Your task to perform on an android device: turn off airplane mode Image 0: 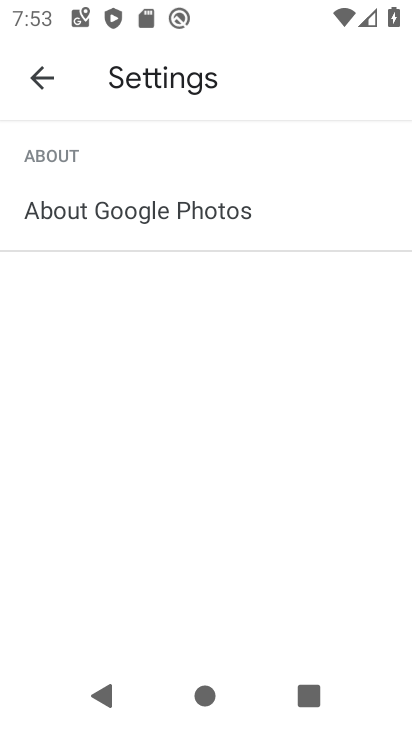
Step 0: press home button
Your task to perform on an android device: turn off airplane mode Image 1: 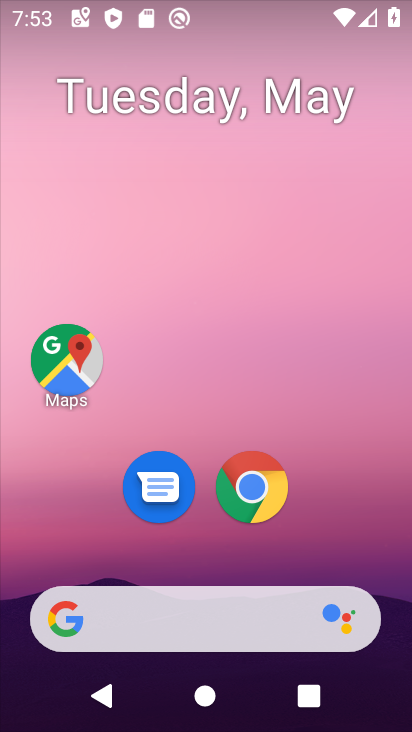
Step 1: drag from (342, 533) to (350, 156)
Your task to perform on an android device: turn off airplane mode Image 2: 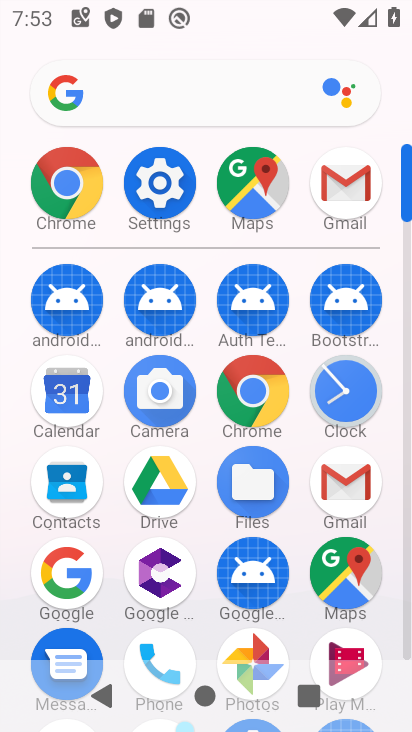
Step 2: click (174, 204)
Your task to perform on an android device: turn off airplane mode Image 3: 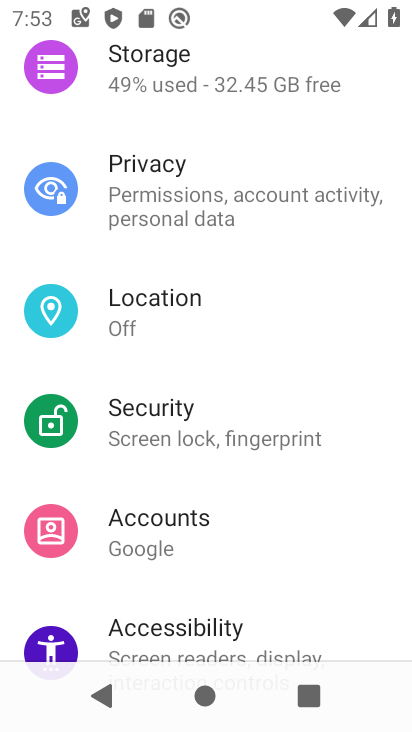
Step 3: drag from (357, 507) to (359, 359)
Your task to perform on an android device: turn off airplane mode Image 4: 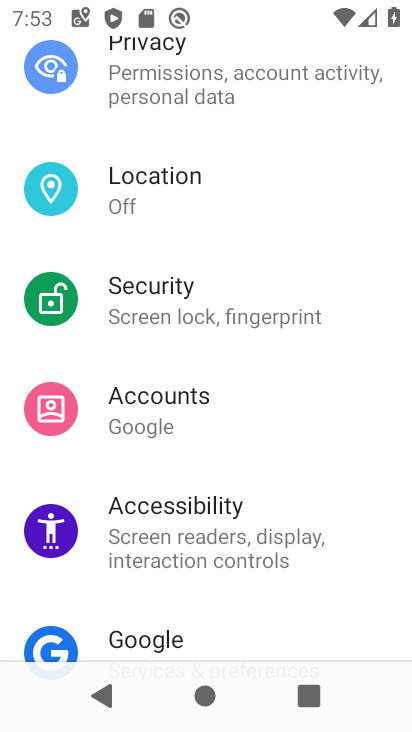
Step 4: drag from (348, 487) to (347, 320)
Your task to perform on an android device: turn off airplane mode Image 5: 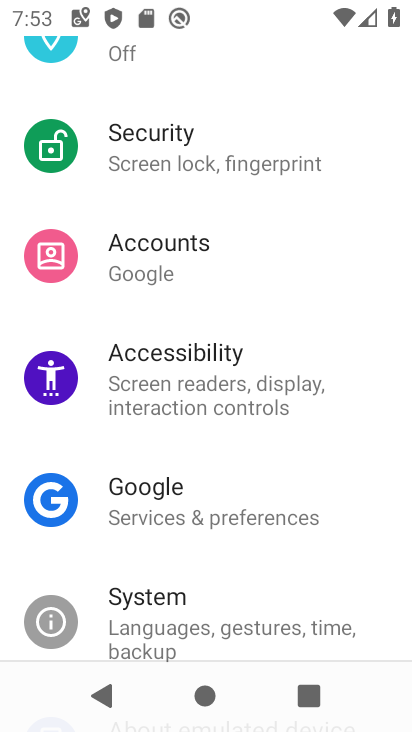
Step 5: drag from (342, 498) to (343, 339)
Your task to perform on an android device: turn off airplane mode Image 6: 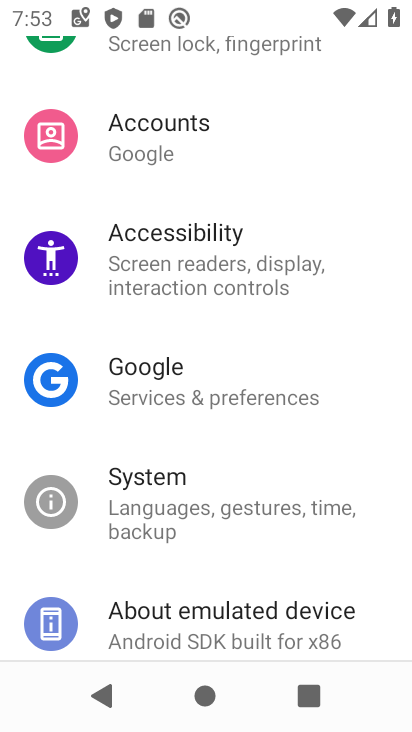
Step 6: drag from (350, 278) to (359, 440)
Your task to perform on an android device: turn off airplane mode Image 7: 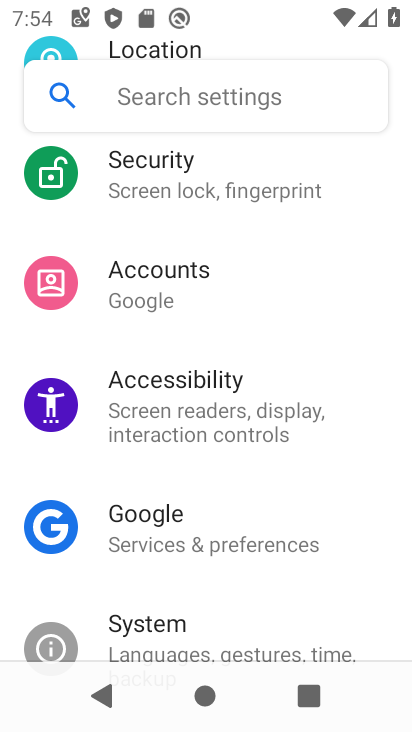
Step 7: drag from (349, 291) to (344, 396)
Your task to perform on an android device: turn off airplane mode Image 8: 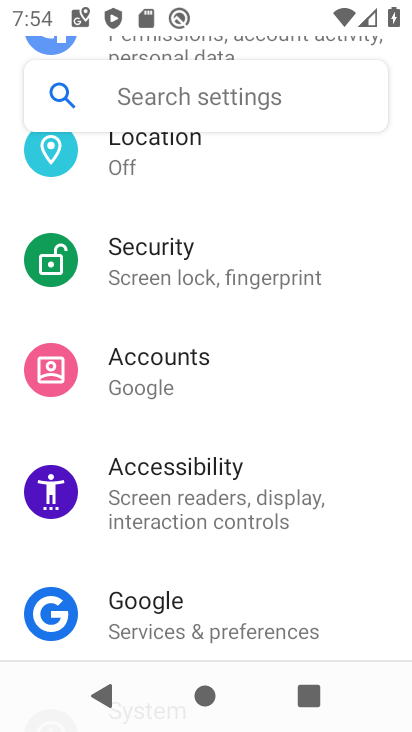
Step 8: drag from (349, 311) to (364, 431)
Your task to perform on an android device: turn off airplane mode Image 9: 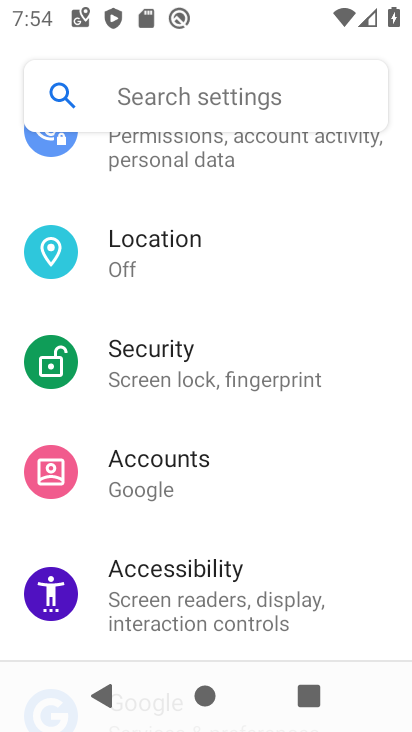
Step 9: drag from (354, 276) to (348, 413)
Your task to perform on an android device: turn off airplane mode Image 10: 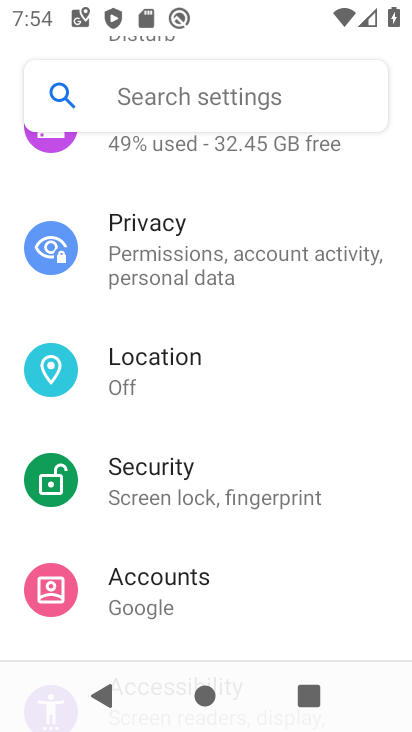
Step 10: drag from (349, 309) to (354, 391)
Your task to perform on an android device: turn off airplane mode Image 11: 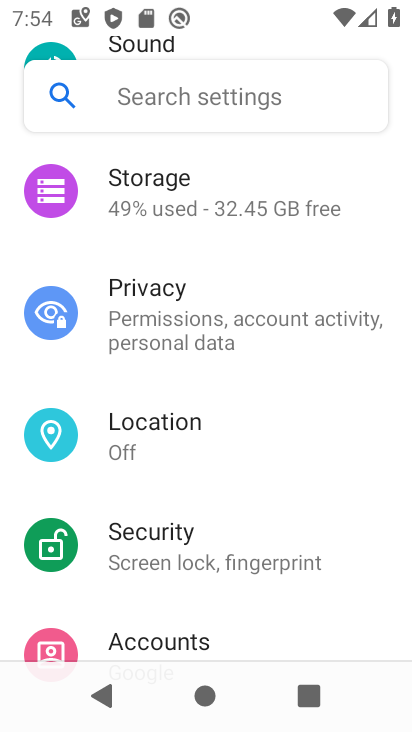
Step 11: drag from (362, 254) to (375, 407)
Your task to perform on an android device: turn off airplane mode Image 12: 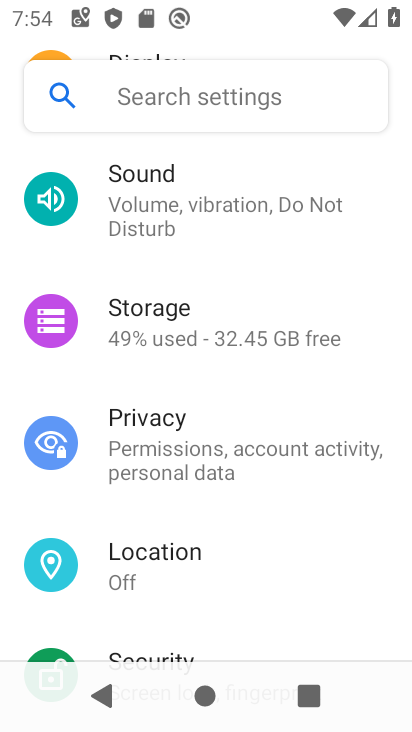
Step 12: drag from (360, 270) to (370, 368)
Your task to perform on an android device: turn off airplane mode Image 13: 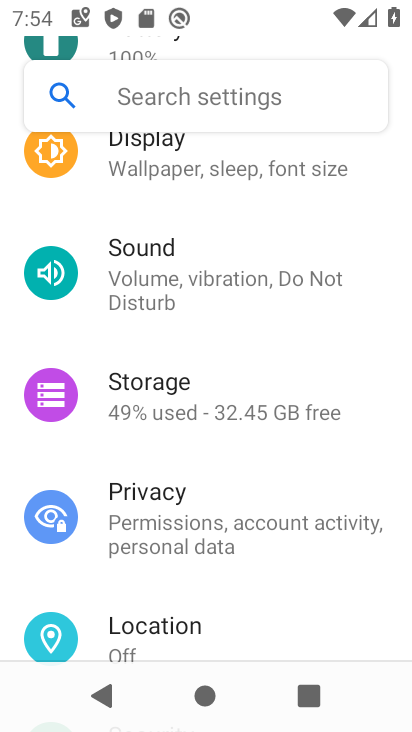
Step 13: drag from (369, 269) to (369, 410)
Your task to perform on an android device: turn off airplane mode Image 14: 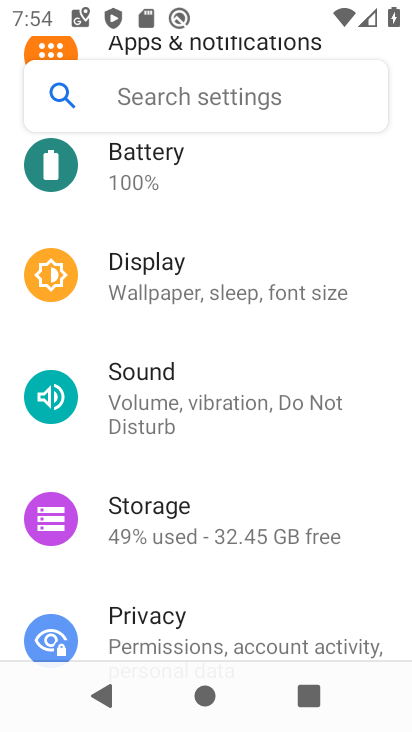
Step 14: drag from (362, 247) to (363, 364)
Your task to perform on an android device: turn off airplane mode Image 15: 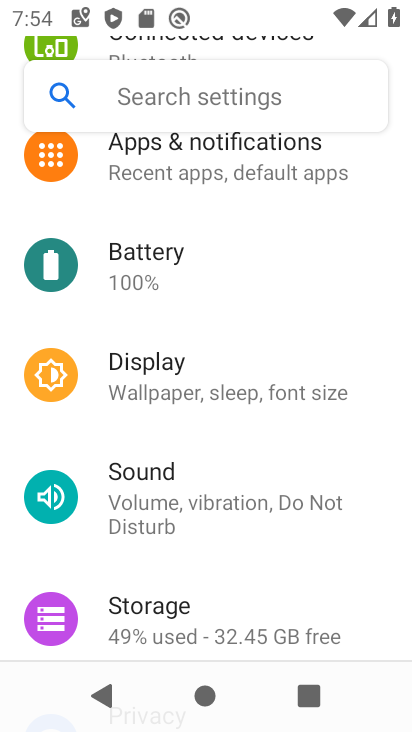
Step 15: drag from (363, 251) to (357, 353)
Your task to perform on an android device: turn off airplane mode Image 16: 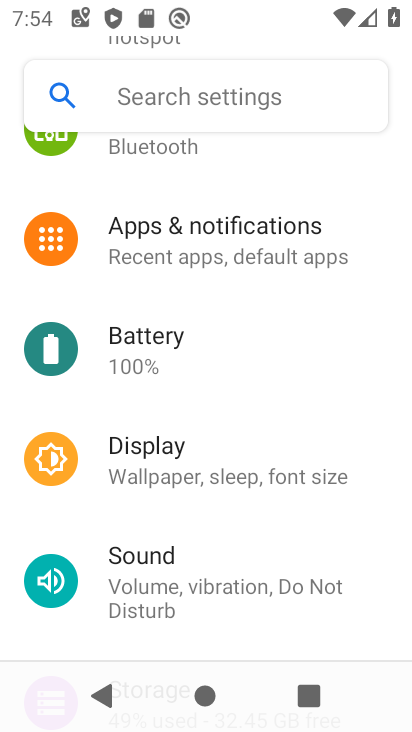
Step 16: drag from (357, 202) to (351, 352)
Your task to perform on an android device: turn off airplane mode Image 17: 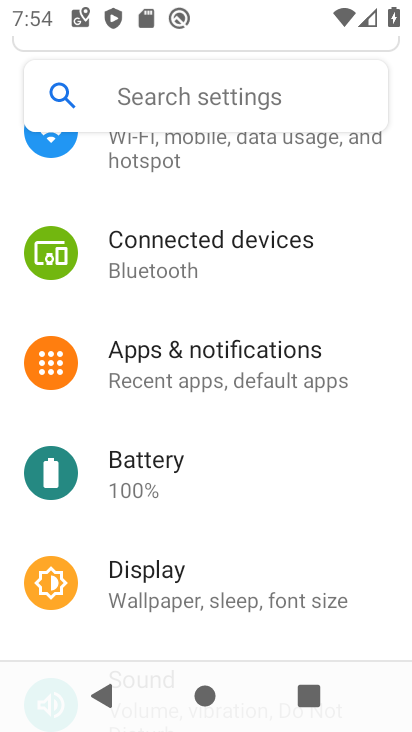
Step 17: drag from (366, 197) to (357, 335)
Your task to perform on an android device: turn off airplane mode Image 18: 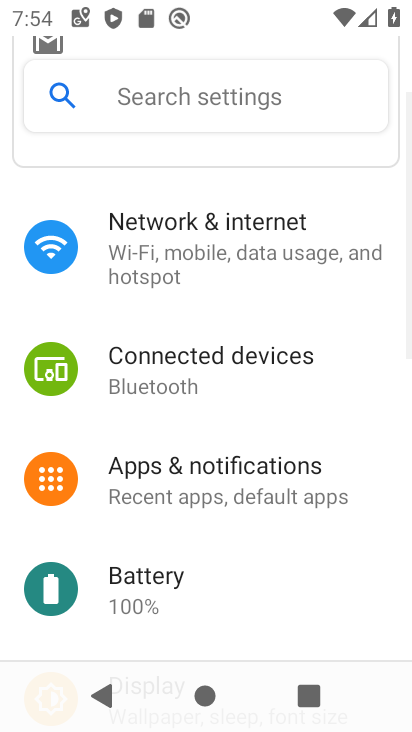
Step 18: click (338, 253)
Your task to perform on an android device: turn off airplane mode Image 19: 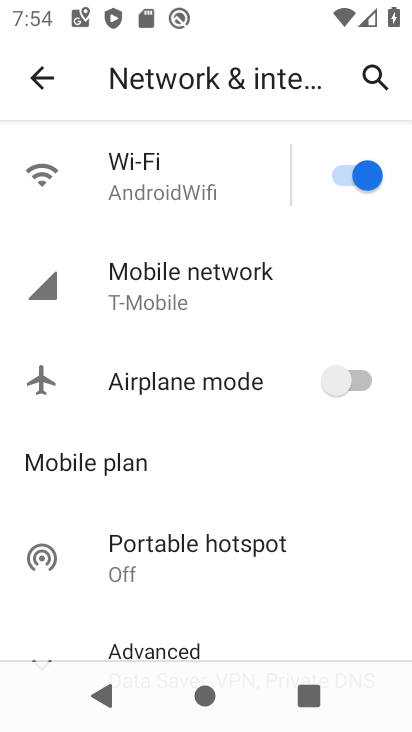
Step 19: task complete